Your task to perform on an android device: toggle translation in the chrome app Image 0: 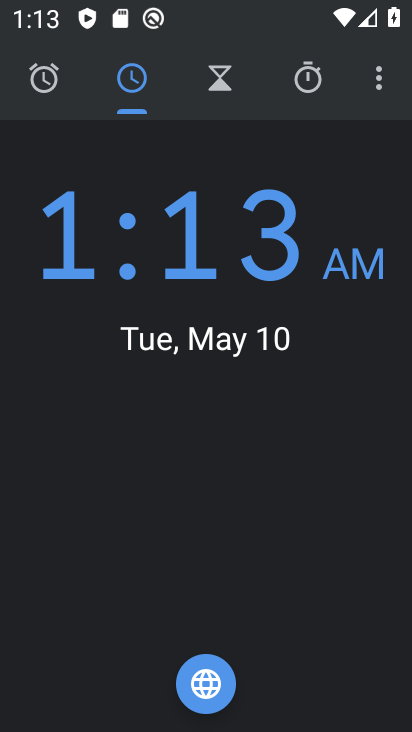
Step 0: press back button
Your task to perform on an android device: toggle translation in the chrome app Image 1: 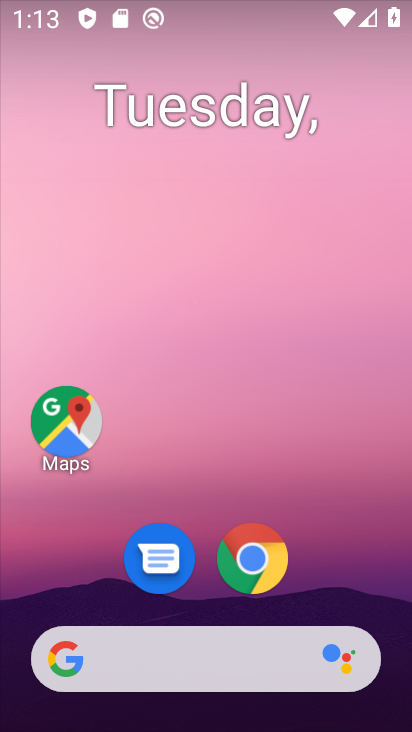
Step 1: click (249, 564)
Your task to perform on an android device: toggle translation in the chrome app Image 2: 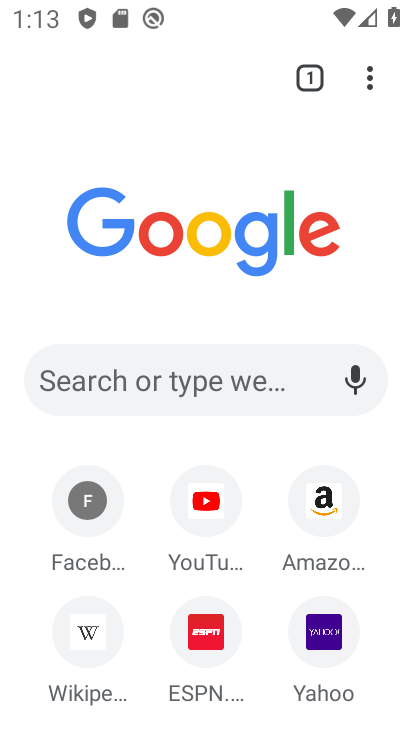
Step 2: drag from (365, 78) to (175, 650)
Your task to perform on an android device: toggle translation in the chrome app Image 3: 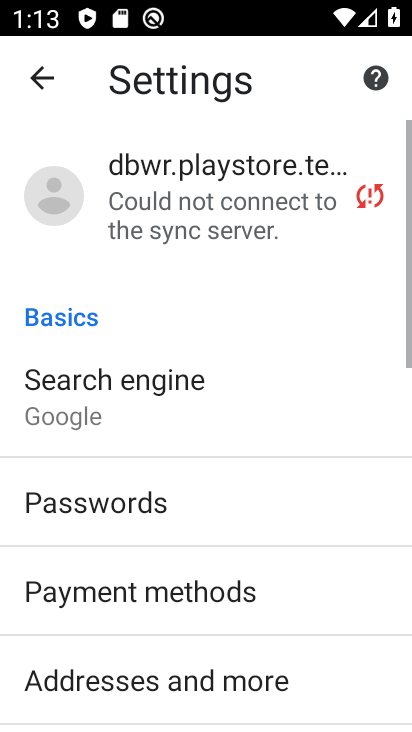
Step 3: drag from (199, 642) to (364, 106)
Your task to perform on an android device: toggle translation in the chrome app Image 4: 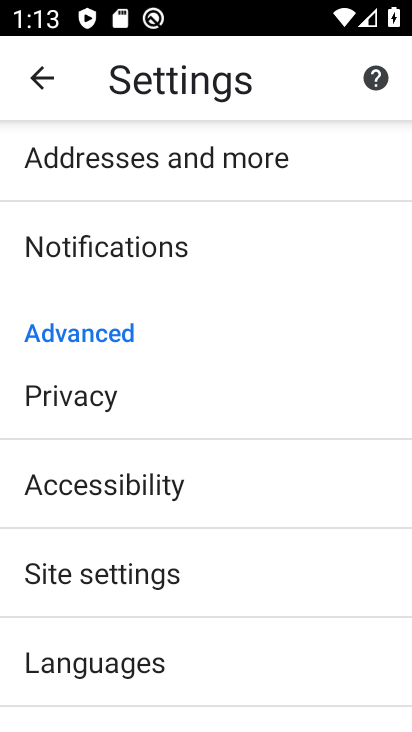
Step 4: click (133, 668)
Your task to perform on an android device: toggle translation in the chrome app Image 5: 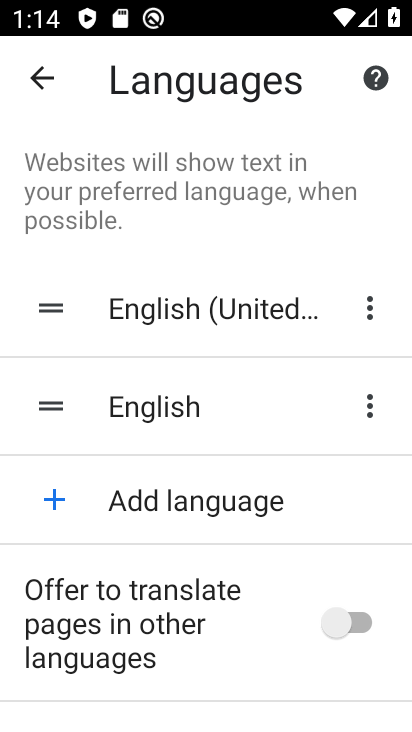
Step 5: click (356, 626)
Your task to perform on an android device: toggle translation in the chrome app Image 6: 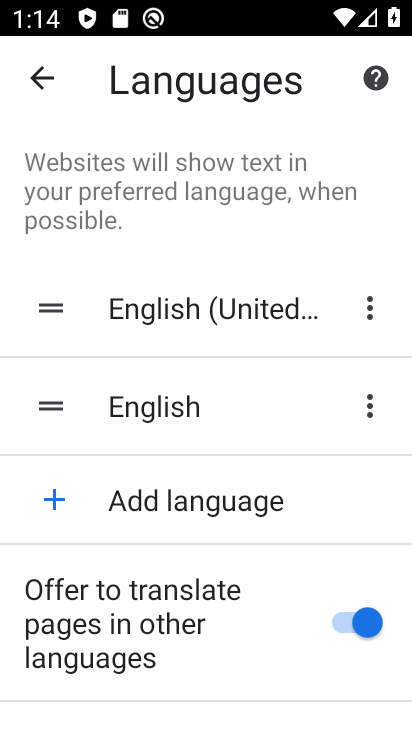
Step 6: task complete